Your task to perform on an android device: Open Amazon Image 0: 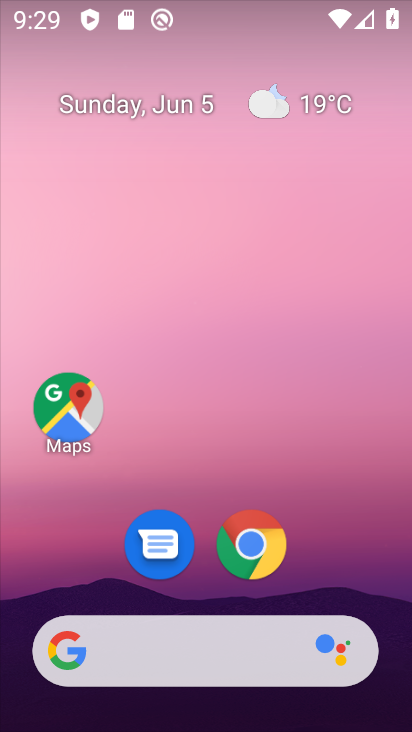
Step 0: press home button
Your task to perform on an android device: Open Amazon Image 1: 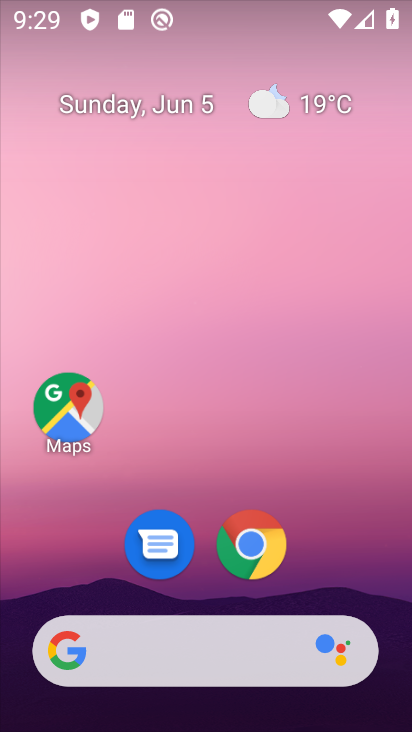
Step 1: click (350, 508)
Your task to perform on an android device: Open Amazon Image 2: 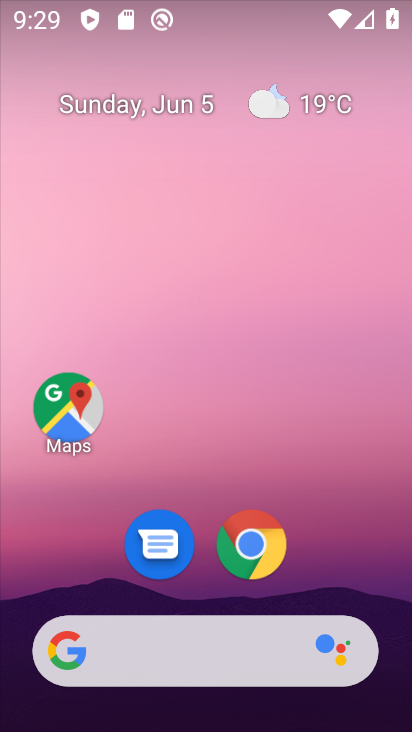
Step 2: click (259, 547)
Your task to perform on an android device: Open Amazon Image 3: 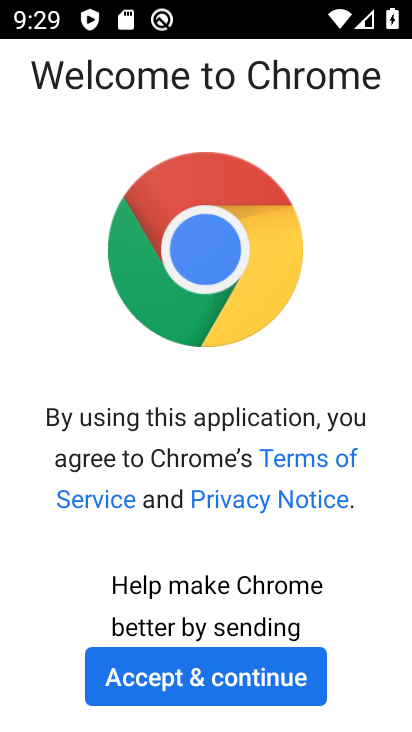
Step 3: click (259, 680)
Your task to perform on an android device: Open Amazon Image 4: 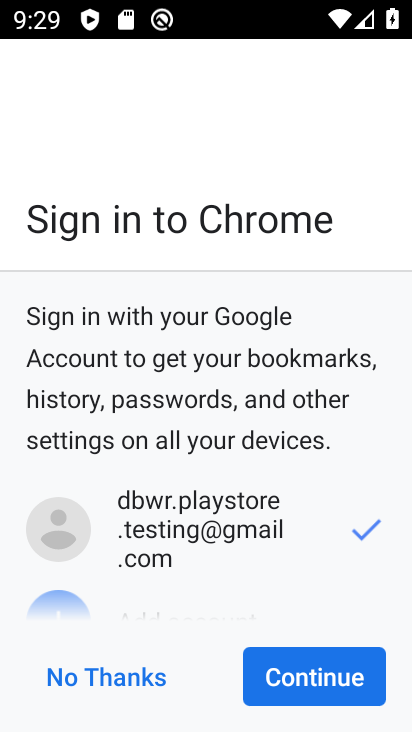
Step 4: click (277, 680)
Your task to perform on an android device: Open Amazon Image 5: 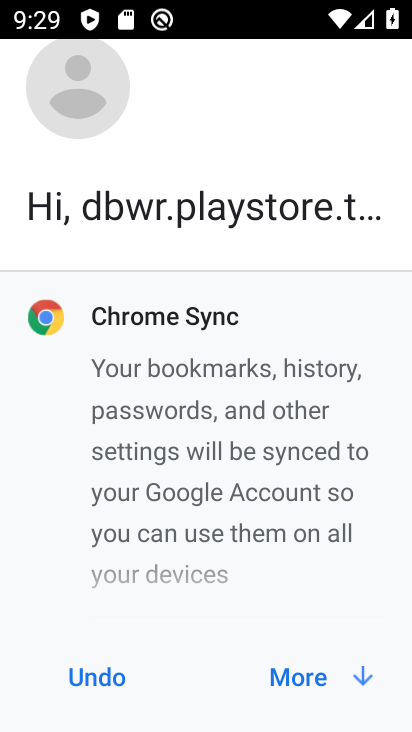
Step 5: click (277, 680)
Your task to perform on an android device: Open Amazon Image 6: 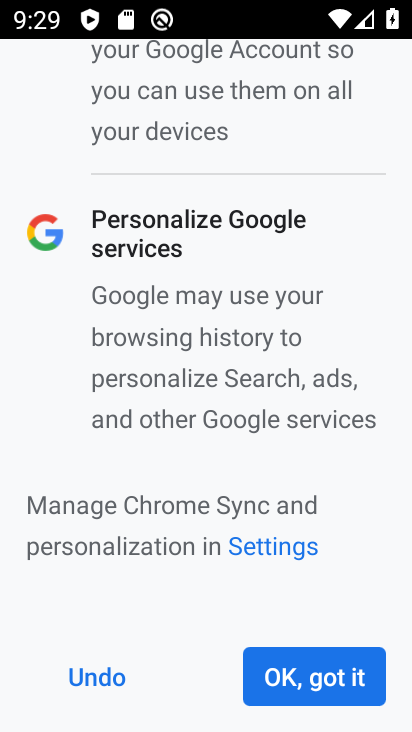
Step 6: click (277, 680)
Your task to perform on an android device: Open Amazon Image 7: 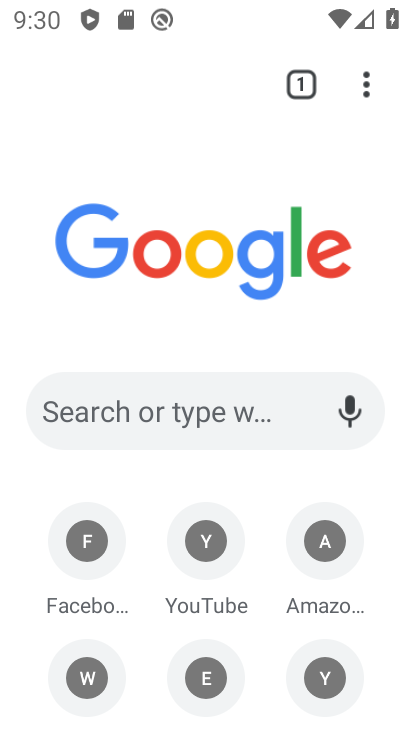
Step 7: click (339, 563)
Your task to perform on an android device: Open Amazon Image 8: 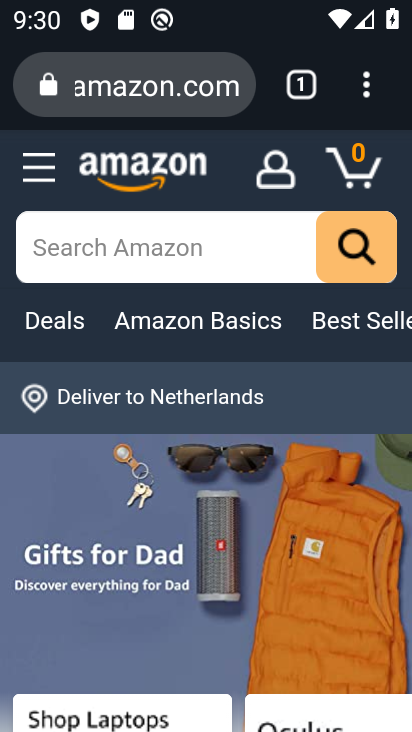
Step 8: task complete